Your task to perform on an android device: snooze an email in the gmail app Image 0: 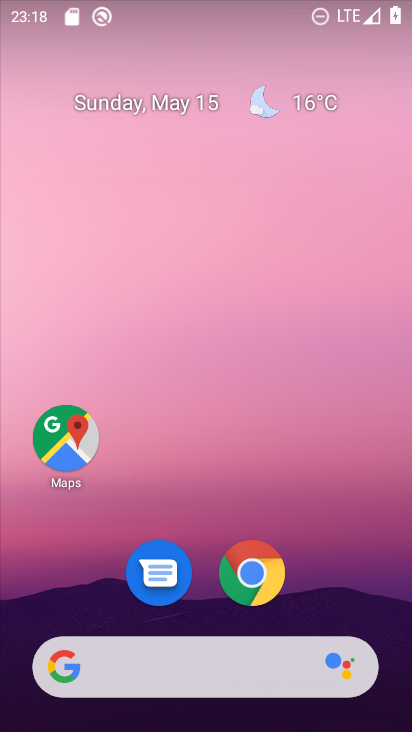
Step 0: press home button
Your task to perform on an android device: snooze an email in the gmail app Image 1: 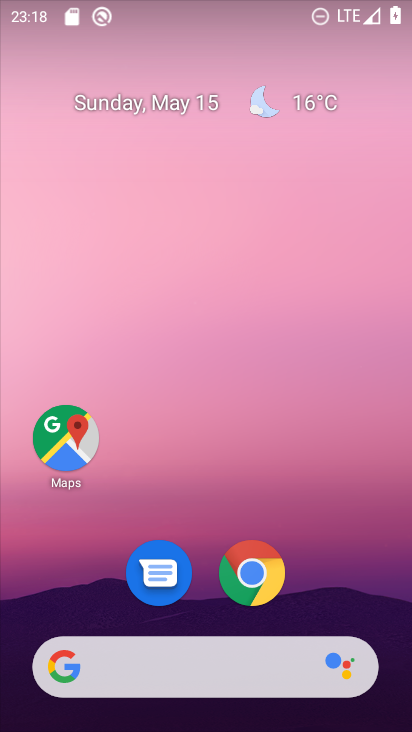
Step 1: press home button
Your task to perform on an android device: snooze an email in the gmail app Image 2: 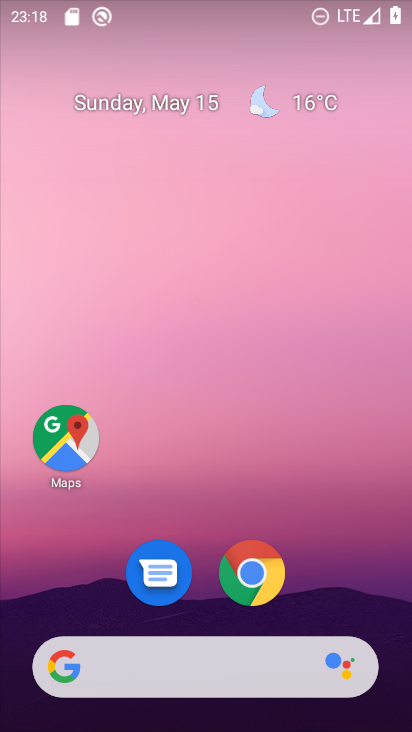
Step 2: press home button
Your task to perform on an android device: snooze an email in the gmail app Image 3: 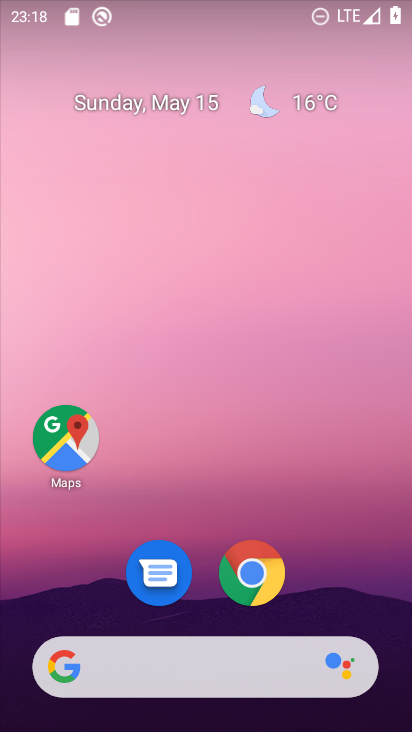
Step 3: press home button
Your task to perform on an android device: snooze an email in the gmail app Image 4: 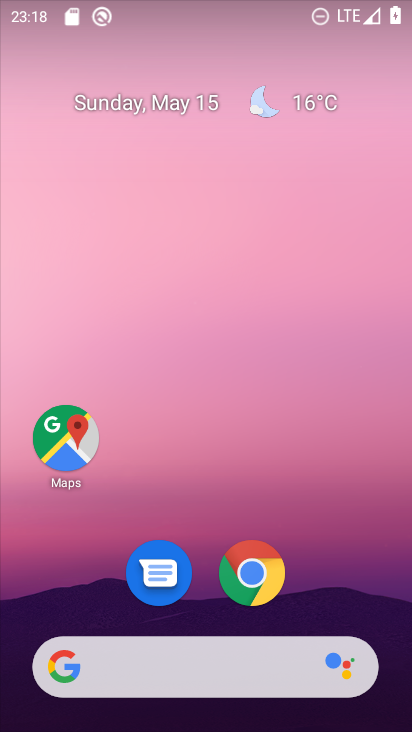
Step 4: press home button
Your task to perform on an android device: snooze an email in the gmail app Image 5: 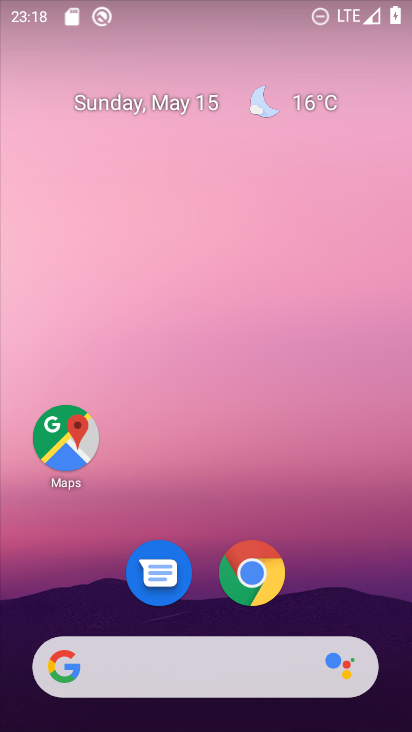
Step 5: press home button
Your task to perform on an android device: snooze an email in the gmail app Image 6: 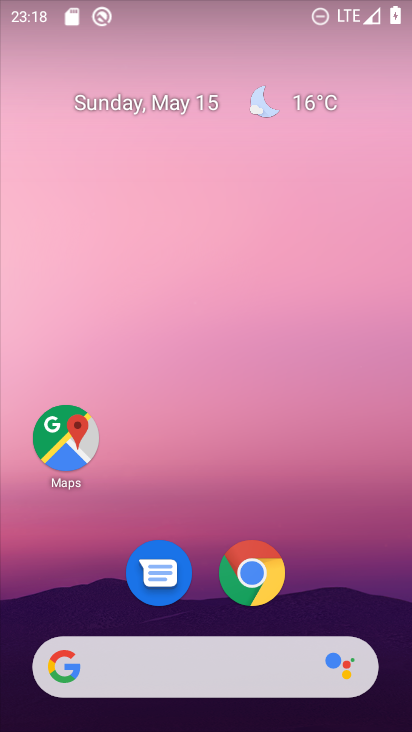
Step 6: drag from (376, 580) to (412, 198)
Your task to perform on an android device: snooze an email in the gmail app Image 7: 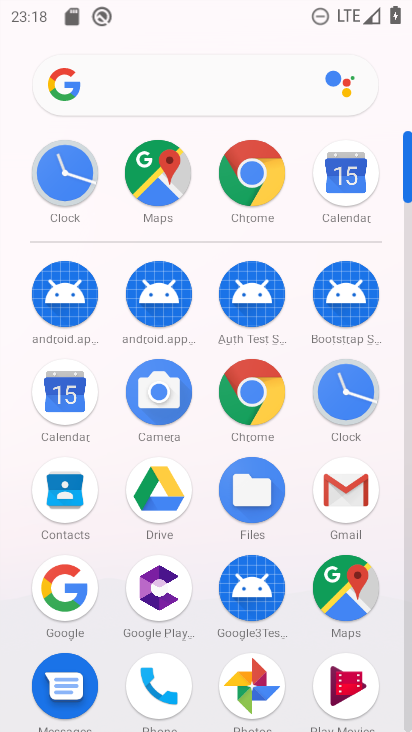
Step 7: click (350, 523)
Your task to perform on an android device: snooze an email in the gmail app Image 8: 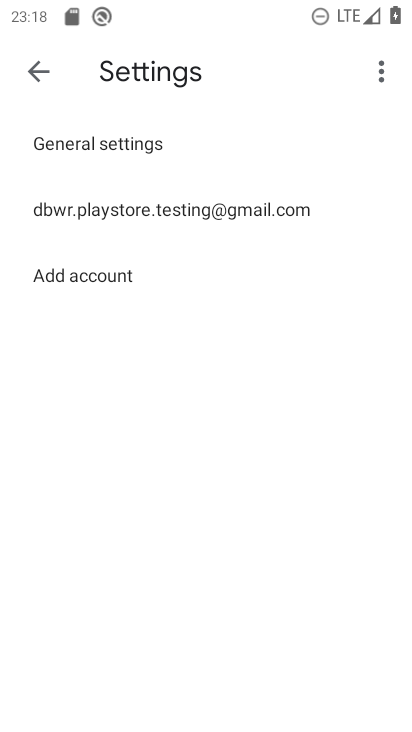
Step 8: click (39, 70)
Your task to perform on an android device: snooze an email in the gmail app Image 9: 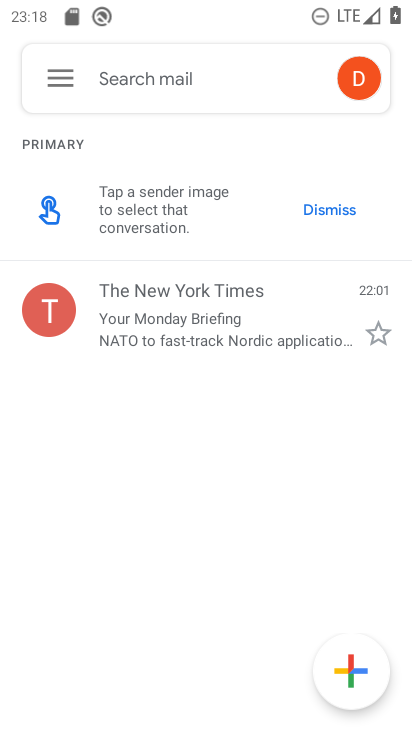
Step 9: click (64, 79)
Your task to perform on an android device: snooze an email in the gmail app Image 10: 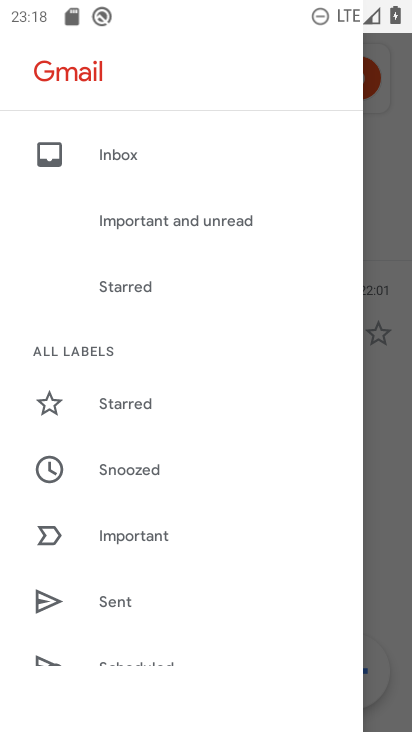
Step 10: task complete